Your task to perform on an android device: Go to accessibility settings Image 0: 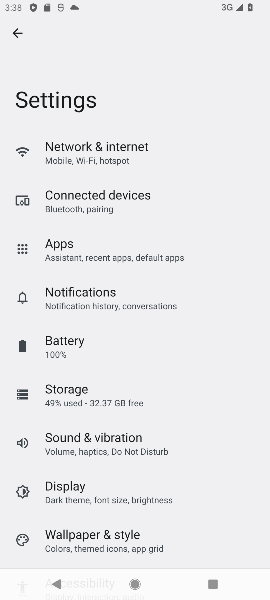
Step 0: drag from (263, 544) to (219, 179)
Your task to perform on an android device: Go to accessibility settings Image 1: 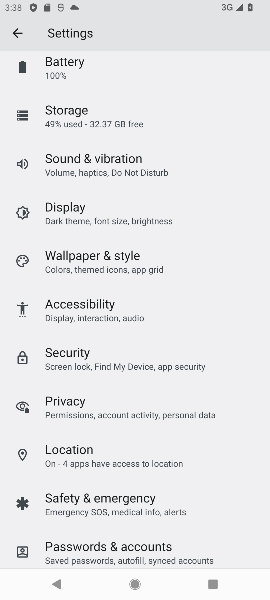
Step 1: click (258, 547)
Your task to perform on an android device: Go to accessibility settings Image 2: 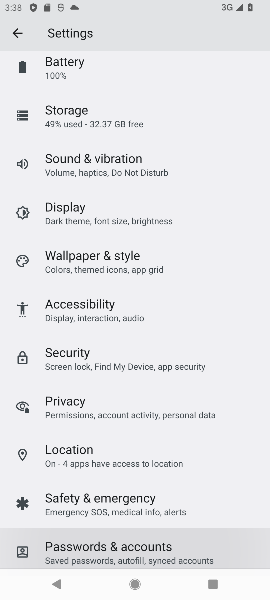
Step 2: drag from (258, 547) to (0, 20)
Your task to perform on an android device: Go to accessibility settings Image 3: 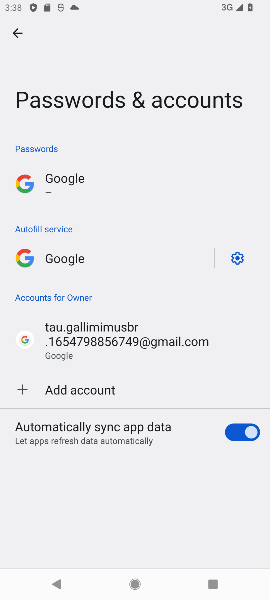
Step 3: click (22, 25)
Your task to perform on an android device: Go to accessibility settings Image 4: 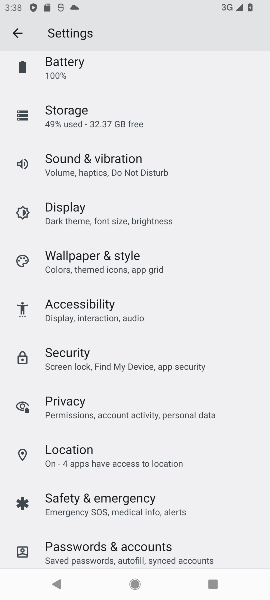
Step 4: drag from (253, 544) to (267, 318)
Your task to perform on an android device: Go to accessibility settings Image 5: 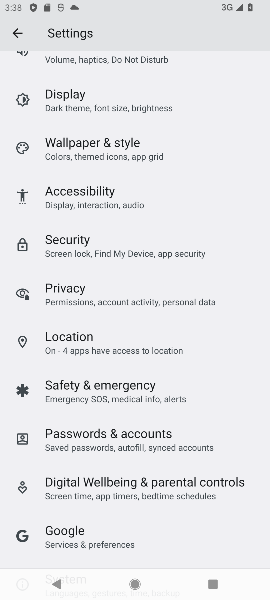
Step 5: click (69, 198)
Your task to perform on an android device: Go to accessibility settings Image 6: 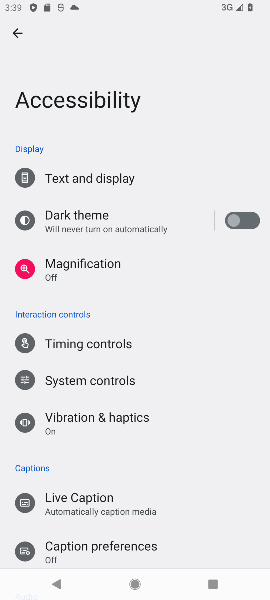
Step 6: task complete